Your task to perform on an android device: search for starred emails in the gmail app Image 0: 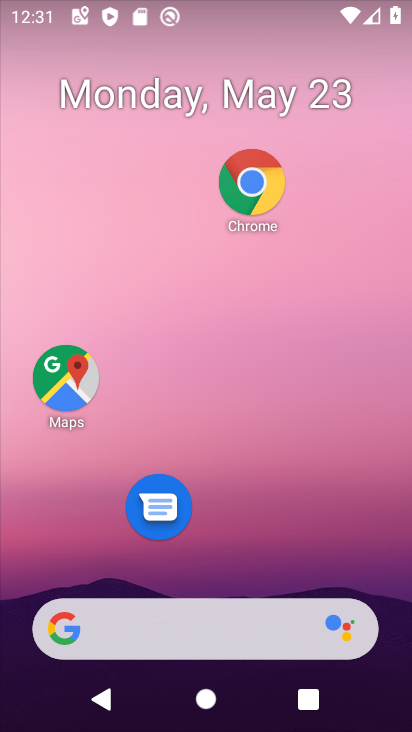
Step 0: drag from (257, 655) to (383, 81)
Your task to perform on an android device: search for starred emails in the gmail app Image 1: 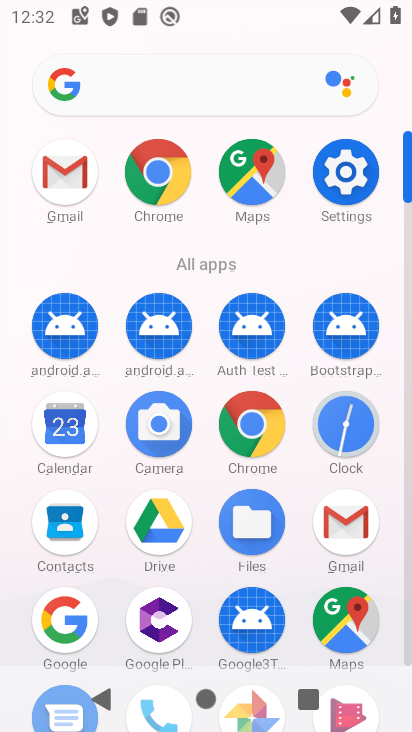
Step 1: click (48, 169)
Your task to perform on an android device: search for starred emails in the gmail app Image 2: 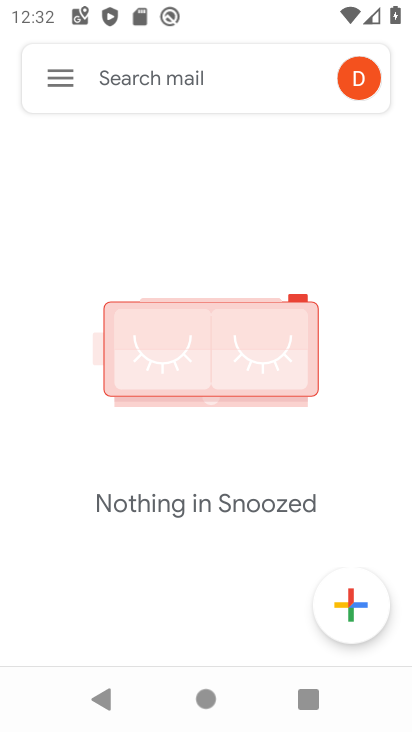
Step 2: click (67, 71)
Your task to perform on an android device: search for starred emails in the gmail app Image 3: 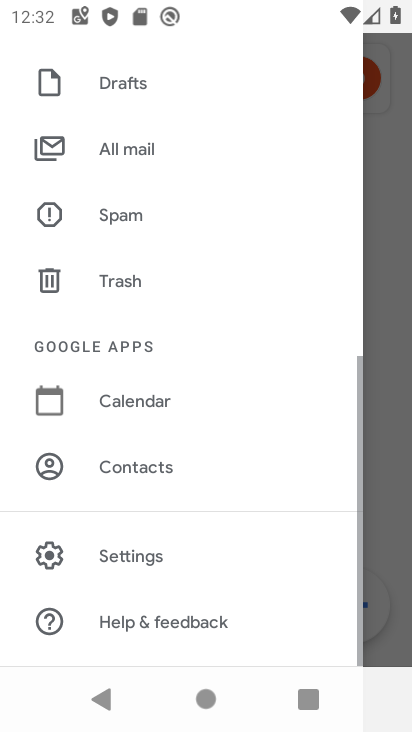
Step 3: drag from (187, 177) to (207, 660)
Your task to perform on an android device: search for starred emails in the gmail app Image 4: 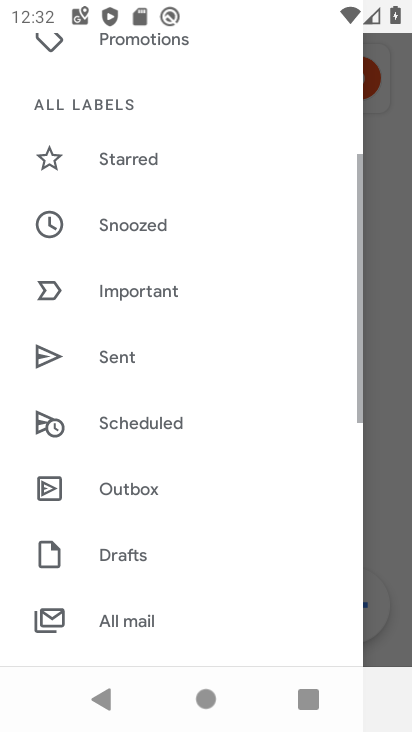
Step 4: click (146, 172)
Your task to perform on an android device: search for starred emails in the gmail app Image 5: 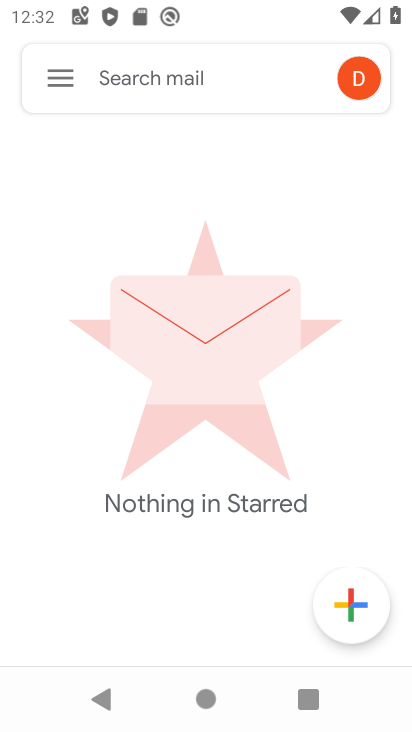
Step 5: task complete